Your task to perform on an android device: turn off data saver in the chrome app Image 0: 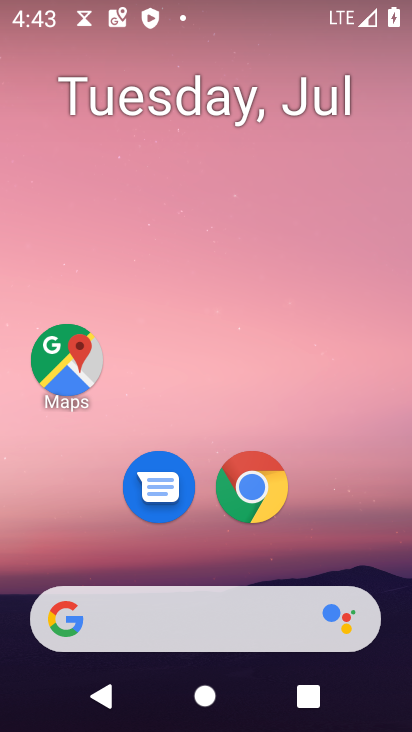
Step 0: click (269, 487)
Your task to perform on an android device: turn off data saver in the chrome app Image 1: 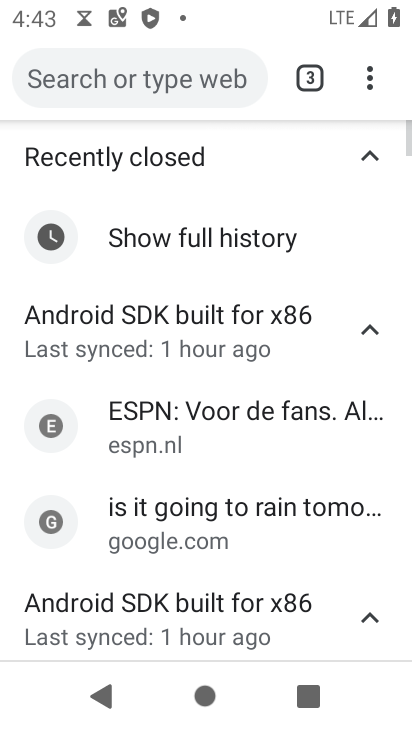
Step 1: drag from (372, 72) to (155, 548)
Your task to perform on an android device: turn off data saver in the chrome app Image 2: 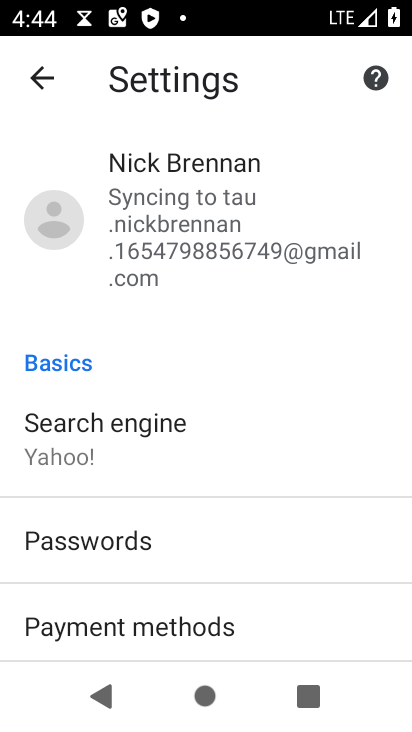
Step 2: drag from (147, 631) to (234, 78)
Your task to perform on an android device: turn off data saver in the chrome app Image 3: 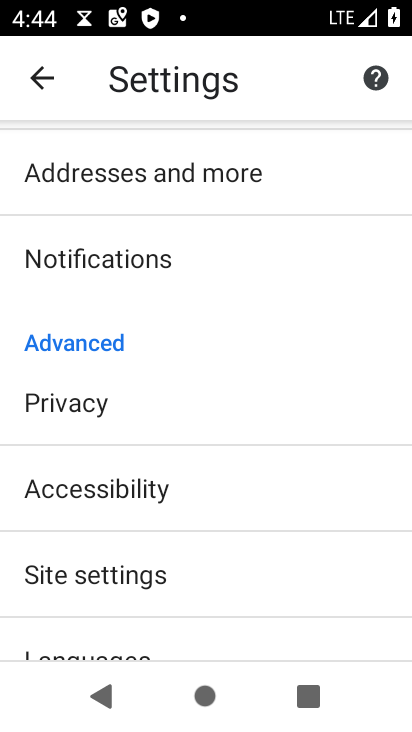
Step 3: drag from (181, 579) to (273, 160)
Your task to perform on an android device: turn off data saver in the chrome app Image 4: 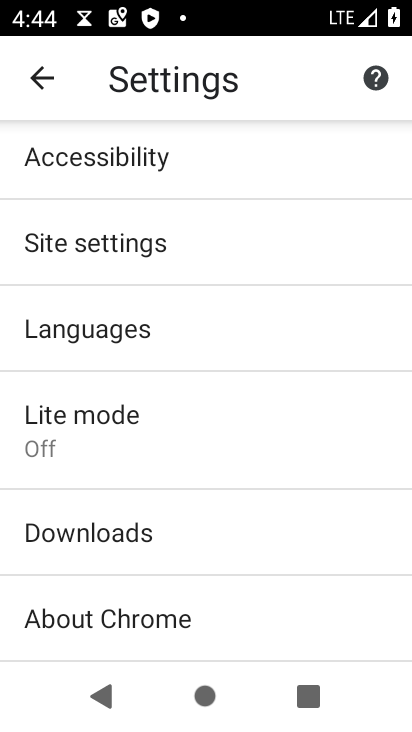
Step 4: click (131, 419)
Your task to perform on an android device: turn off data saver in the chrome app Image 5: 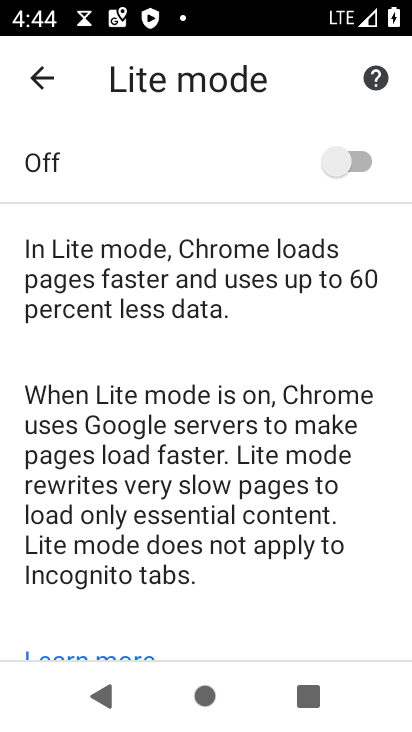
Step 5: task complete